Your task to perform on an android device: open a new tab in the chrome app Image 0: 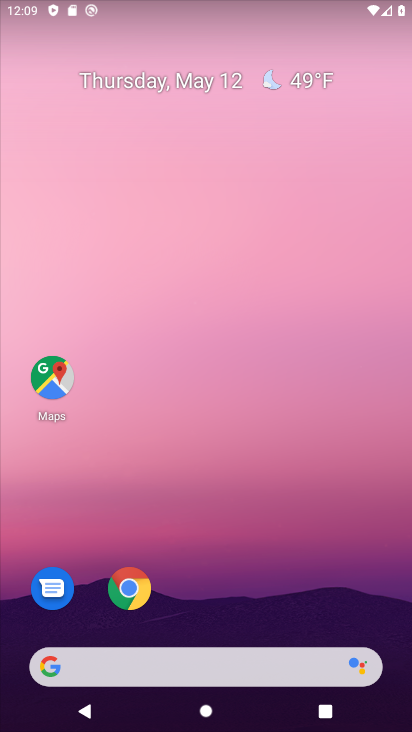
Step 0: drag from (357, 654) to (216, 145)
Your task to perform on an android device: open a new tab in the chrome app Image 1: 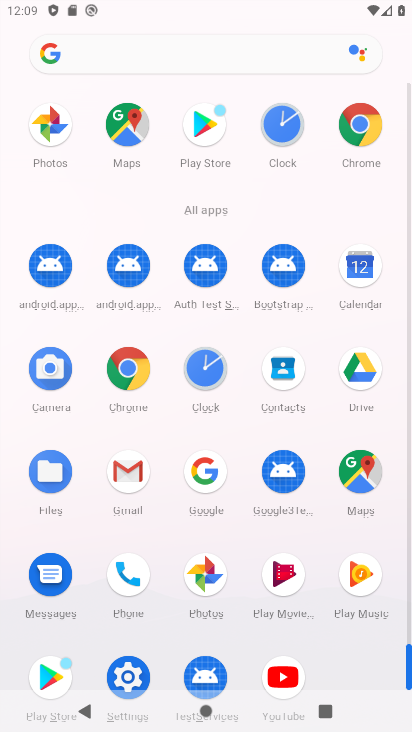
Step 1: click (355, 116)
Your task to perform on an android device: open a new tab in the chrome app Image 2: 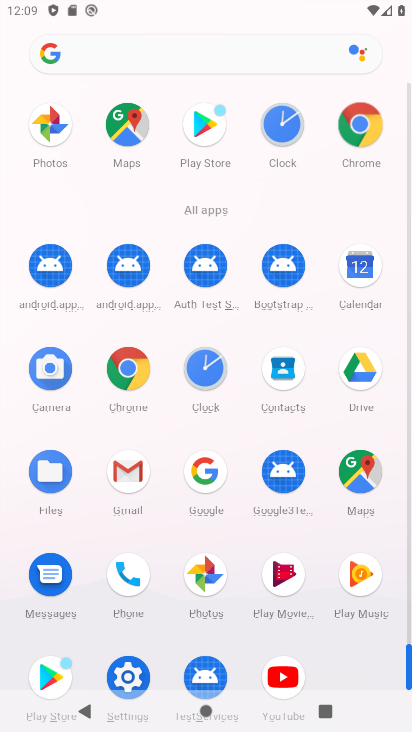
Step 2: click (355, 116)
Your task to perform on an android device: open a new tab in the chrome app Image 3: 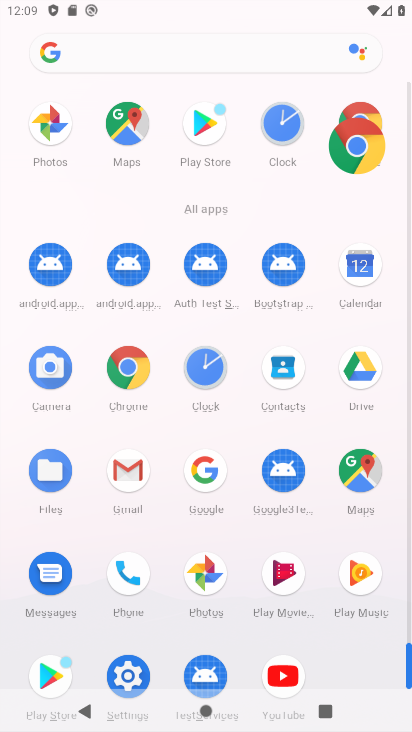
Step 3: click (355, 116)
Your task to perform on an android device: open a new tab in the chrome app Image 4: 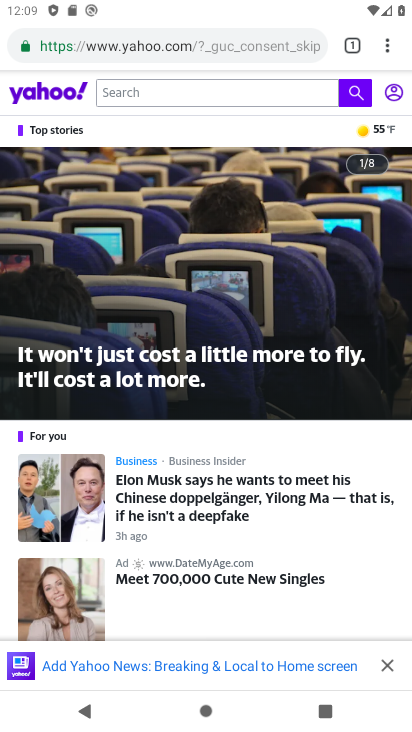
Step 4: drag from (389, 49) to (220, 91)
Your task to perform on an android device: open a new tab in the chrome app Image 5: 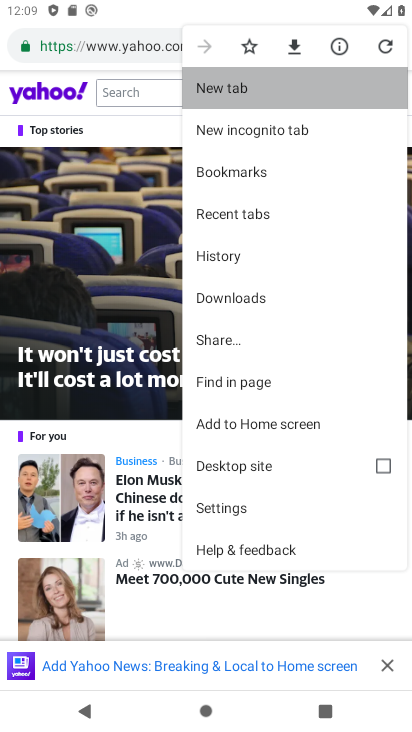
Step 5: click (220, 91)
Your task to perform on an android device: open a new tab in the chrome app Image 6: 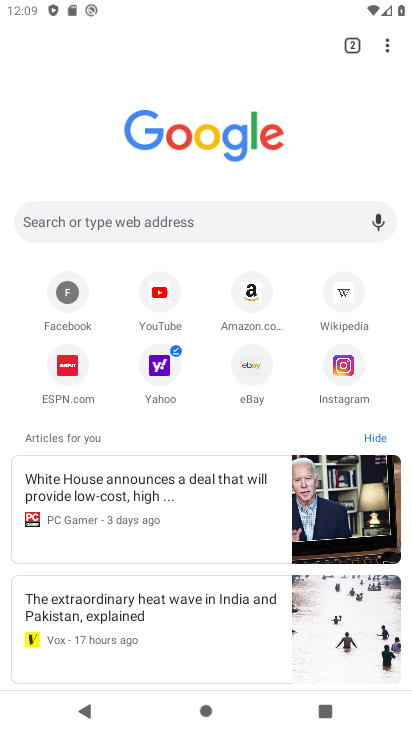
Step 6: task complete